Your task to perform on an android device: find which apps use the phone's location Image 0: 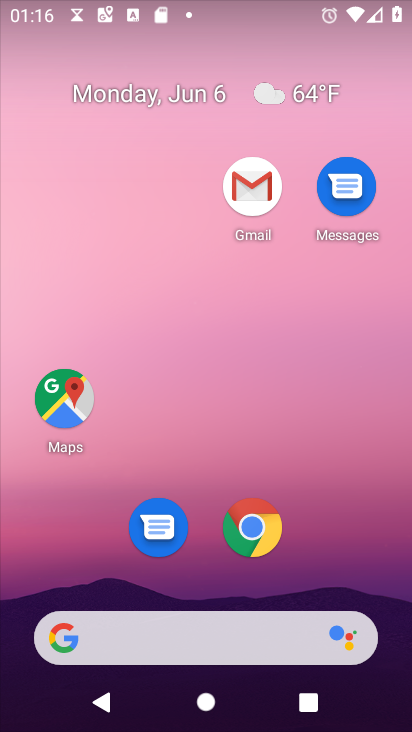
Step 0: drag from (345, 545) to (340, 52)
Your task to perform on an android device: find which apps use the phone's location Image 1: 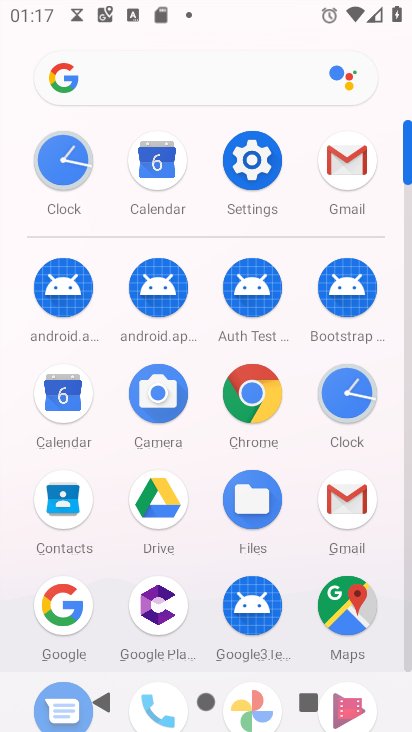
Step 1: click (255, 147)
Your task to perform on an android device: find which apps use the phone's location Image 2: 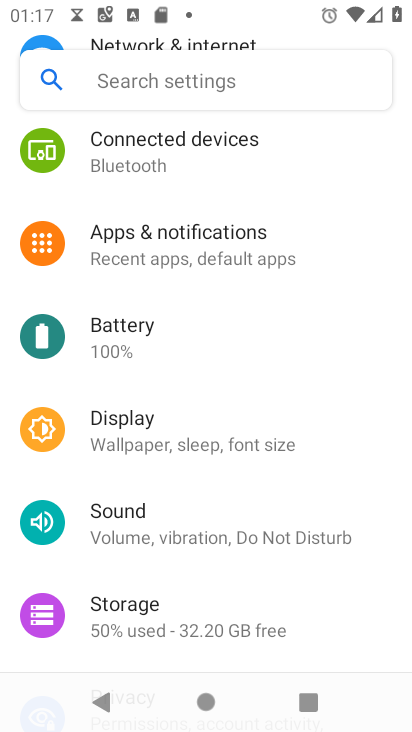
Step 2: drag from (296, 600) to (263, 300)
Your task to perform on an android device: find which apps use the phone's location Image 3: 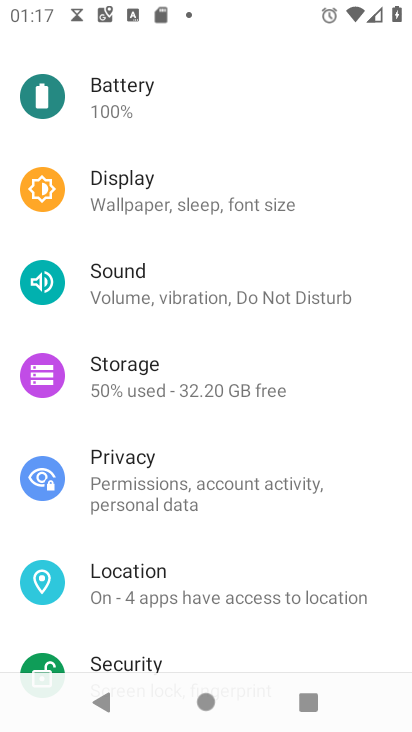
Step 3: click (188, 588)
Your task to perform on an android device: find which apps use the phone's location Image 4: 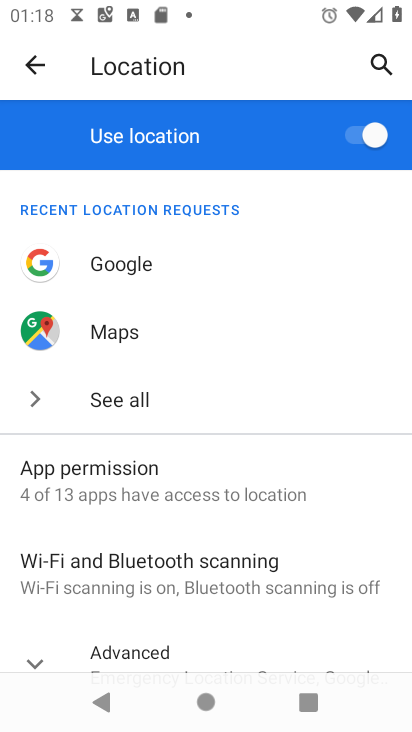
Step 4: click (220, 489)
Your task to perform on an android device: find which apps use the phone's location Image 5: 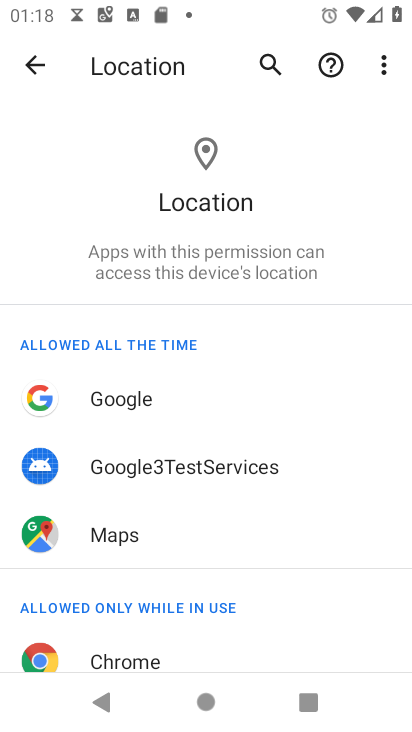
Step 5: task complete